Your task to perform on an android device: empty trash in google photos Image 0: 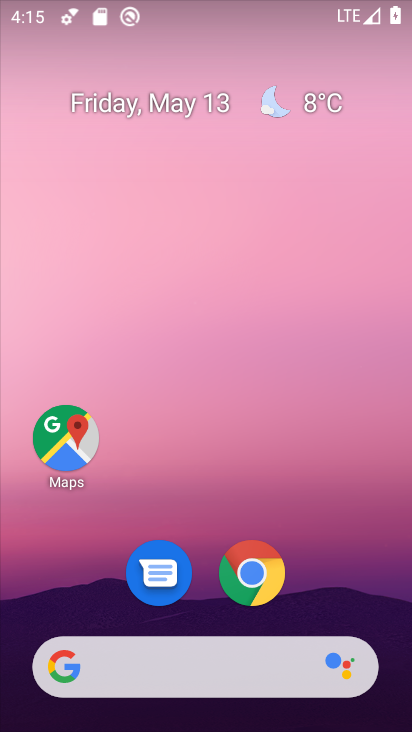
Step 0: drag from (181, 520) to (252, 139)
Your task to perform on an android device: empty trash in google photos Image 1: 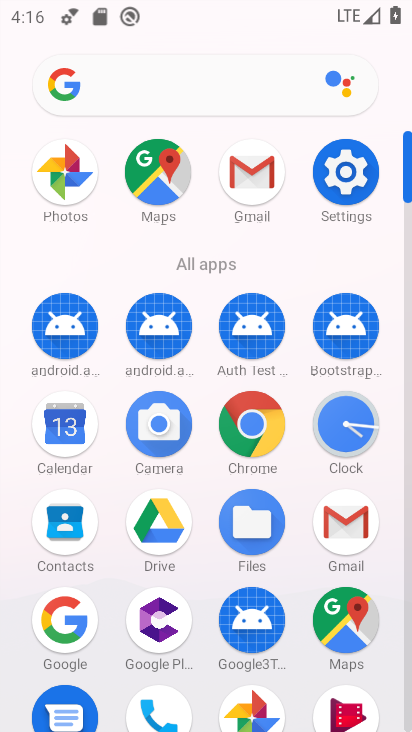
Step 1: click (268, 710)
Your task to perform on an android device: empty trash in google photos Image 2: 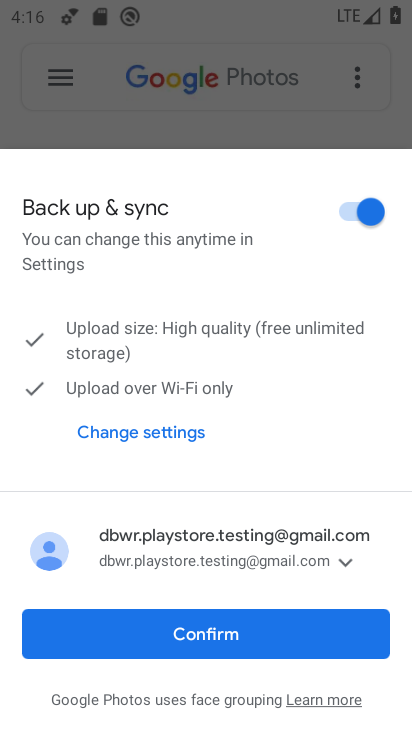
Step 2: click (228, 644)
Your task to perform on an android device: empty trash in google photos Image 3: 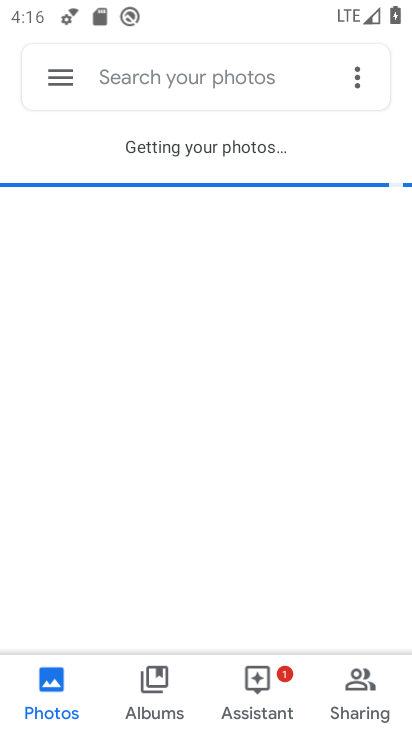
Step 3: click (63, 81)
Your task to perform on an android device: empty trash in google photos Image 4: 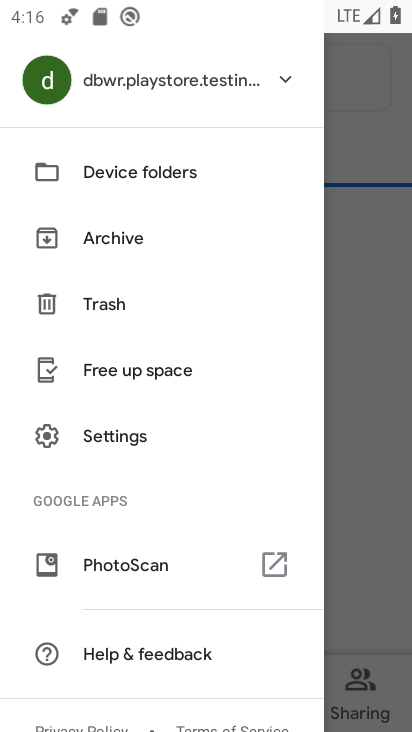
Step 4: click (134, 313)
Your task to perform on an android device: empty trash in google photos Image 5: 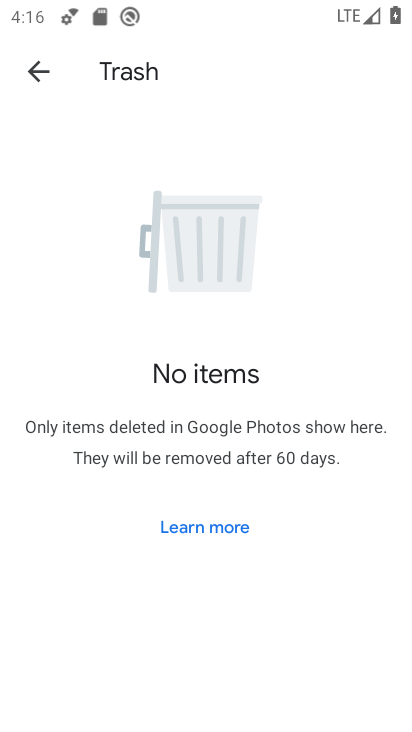
Step 5: task complete